Your task to perform on an android device: open app "PlayWell" (install if not already installed) and go to login screen Image 0: 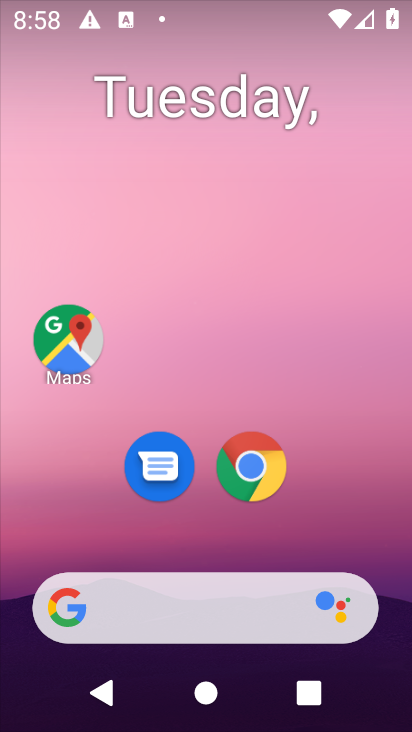
Step 0: drag from (177, 558) to (249, 43)
Your task to perform on an android device: open app "PlayWell" (install if not already installed) and go to login screen Image 1: 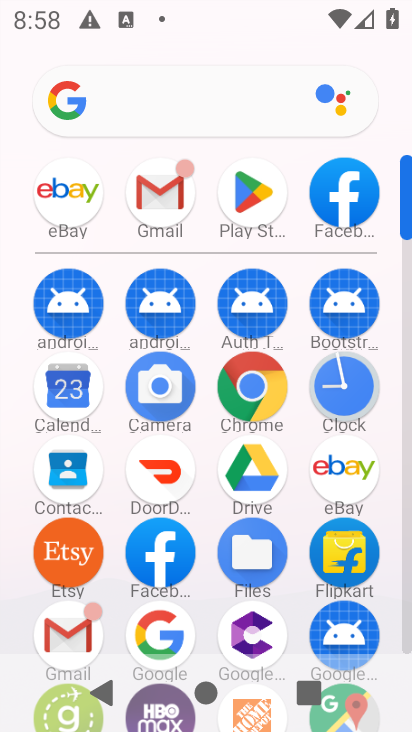
Step 1: click (252, 189)
Your task to perform on an android device: open app "PlayWell" (install if not already installed) and go to login screen Image 2: 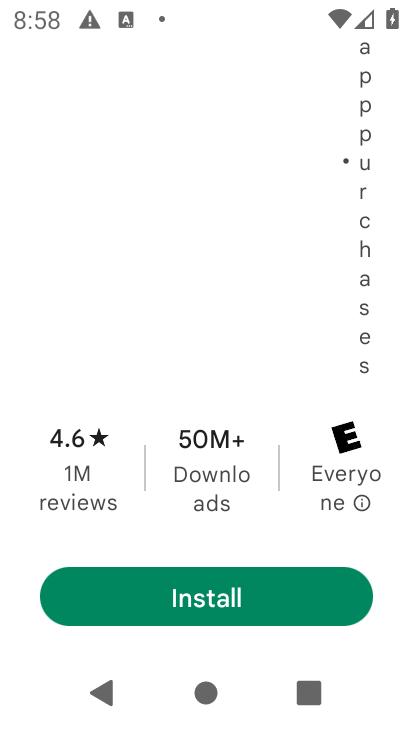
Step 2: press home button
Your task to perform on an android device: open app "PlayWell" (install if not already installed) and go to login screen Image 3: 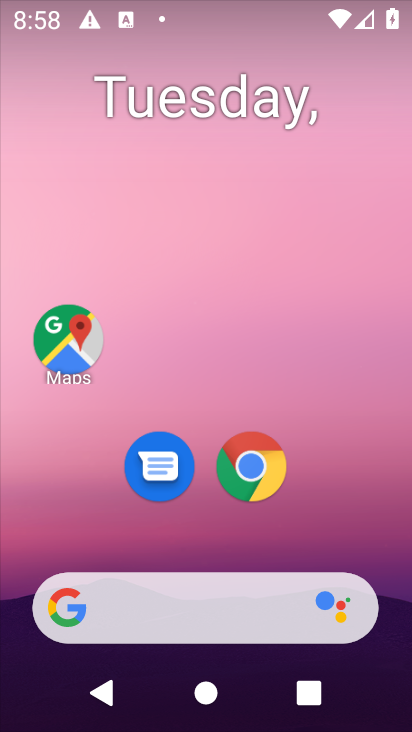
Step 3: drag from (236, 560) to (318, 13)
Your task to perform on an android device: open app "PlayWell" (install if not already installed) and go to login screen Image 4: 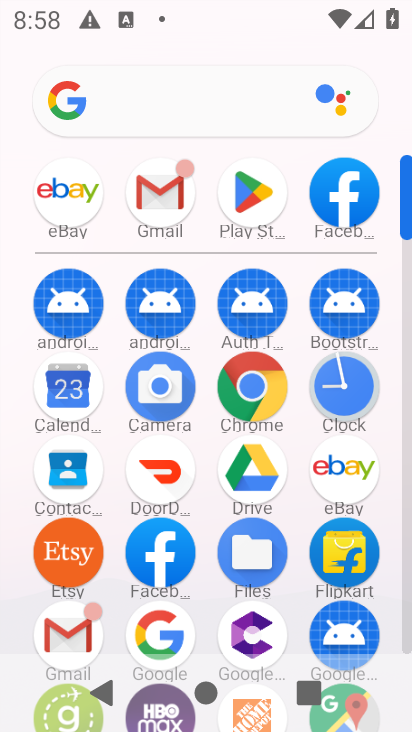
Step 4: click (239, 217)
Your task to perform on an android device: open app "PlayWell" (install if not already installed) and go to login screen Image 5: 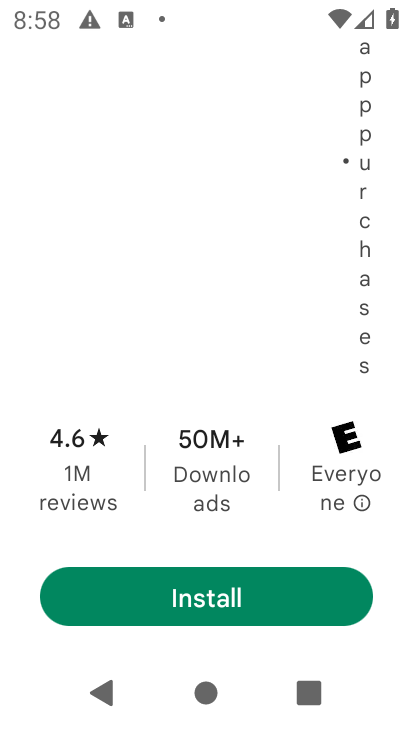
Step 5: press home button
Your task to perform on an android device: open app "PlayWell" (install if not already installed) and go to login screen Image 6: 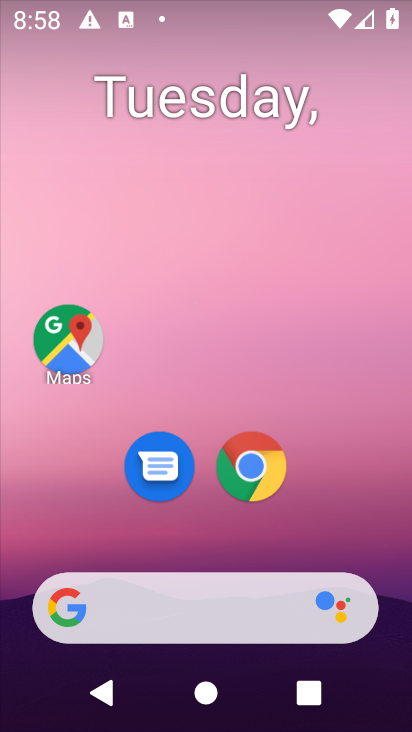
Step 6: drag from (195, 462) to (323, 10)
Your task to perform on an android device: open app "PlayWell" (install if not already installed) and go to login screen Image 7: 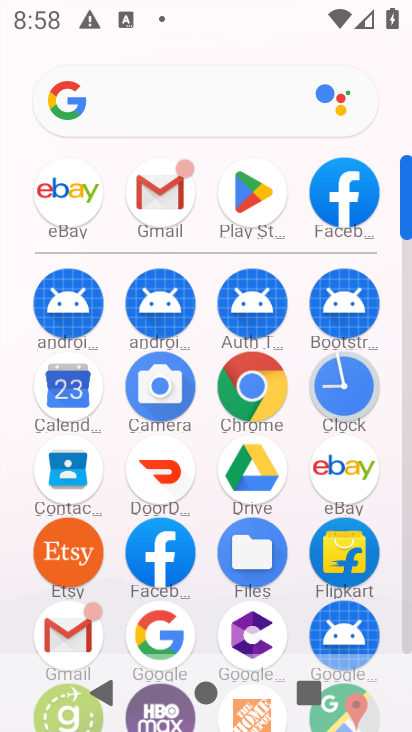
Step 7: click (261, 186)
Your task to perform on an android device: open app "PlayWell" (install if not already installed) and go to login screen Image 8: 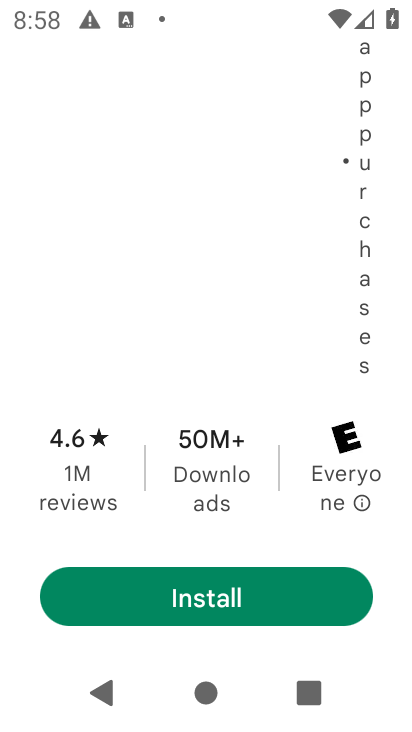
Step 8: press home button
Your task to perform on an android device: open app "PlayWell" (install if not already installed) and go to login screen Image 9: 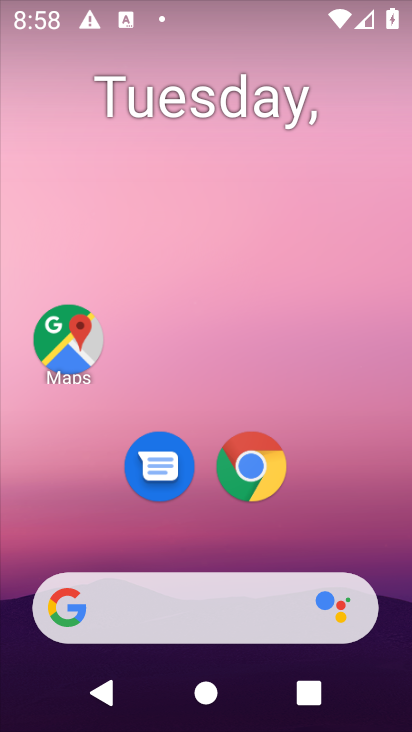
Step 9: drag from (228, 459) to (281, 19)
Your task to perform on an android device: open app "PlayWell" (install if not already installed) and go to login screen Image 10: 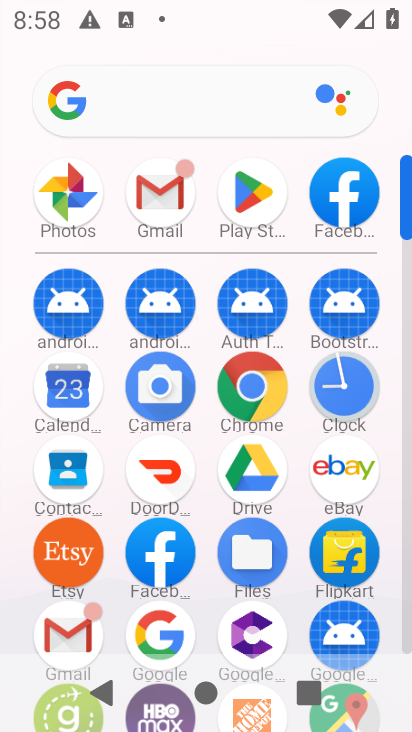
Step 10: click (243, 199)
Your task to perform on an android device: open app "PlayWell" (install if not already installed) and go to login screen Image 11: 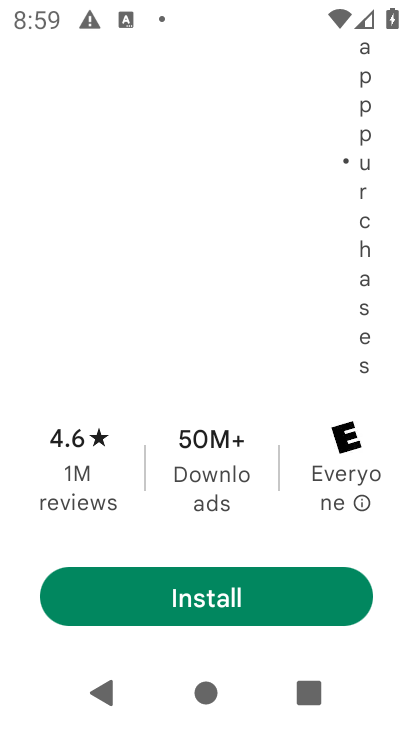
Step 11: drag from (222, 130) to (141, 679)
Your task to perform on an android device: open app "PlayWell" (install if not already installed) and go to login screen Image 12: 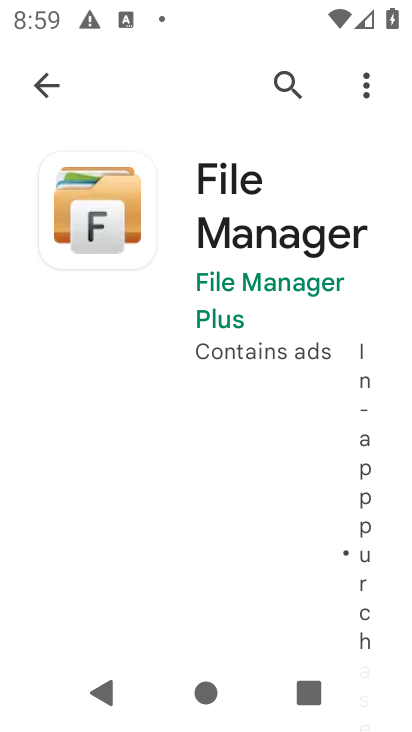
Step 12: click (274, 74)
Your task to perform on an android device: open app "PlayWell" (install if not already installed) and go to login screen Image 13: 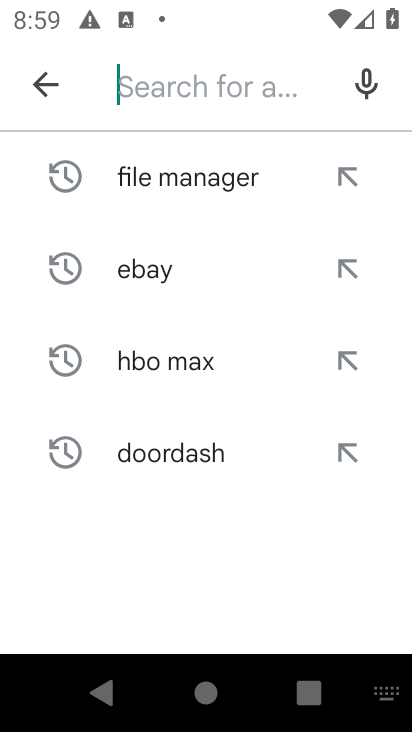
Step 13: type "play well"
Your task to perform on an android device: open app "PlayWell" (install if not already installed) and go to login screen Image 14: 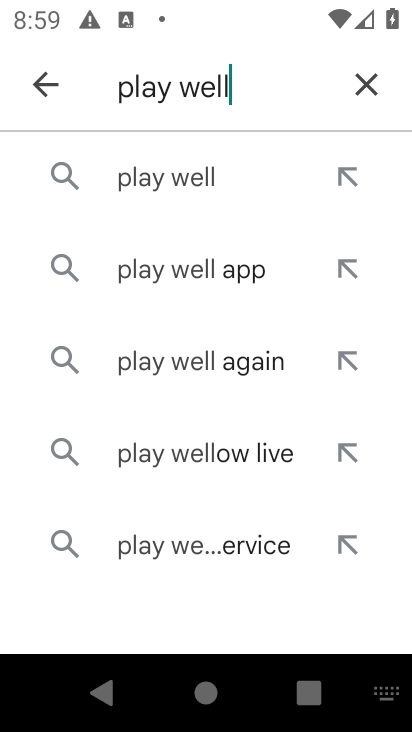
Step 14: click (177, 170)
Your task to perform on an android device: open app "PlayWell" (install if not already installed) and go to login screen Image 15: 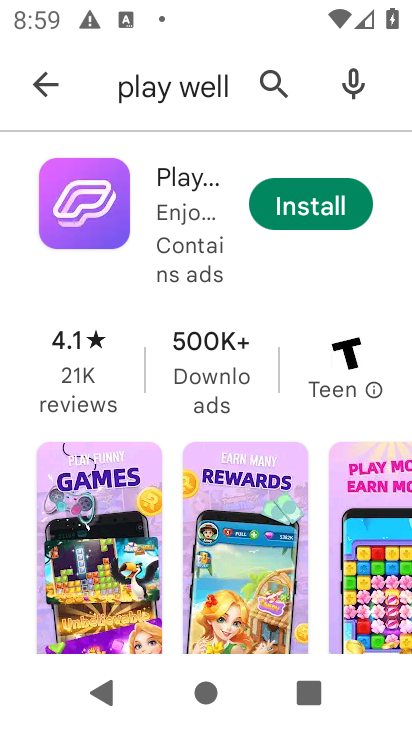
Step 15: click (297, 215)
Your task to perform on an android device: open app "PlayWell" (install if not already installed) and go to login screen Image 16: 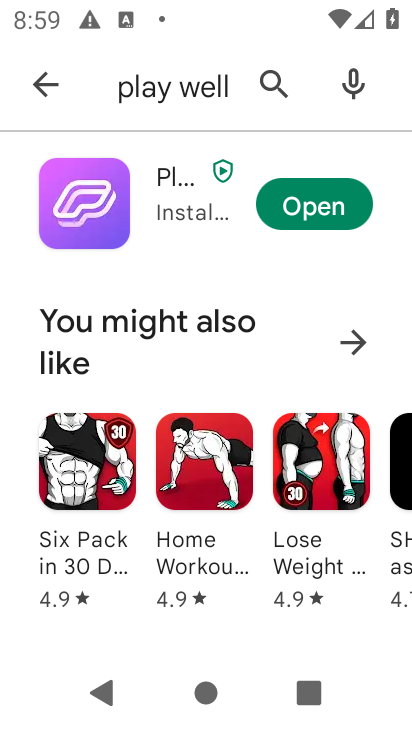
Step 16: click (284, 208)
Your task to perform on an android device: open app "PlayWell" (install if not already installed) and go to login screen Image 17: 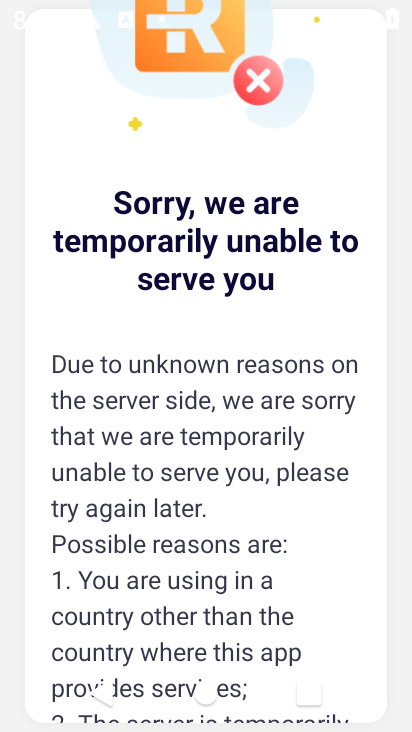
Step 17: task complete